Your task to perform on an android device: turn off smart reply in the gmail app Image 0: 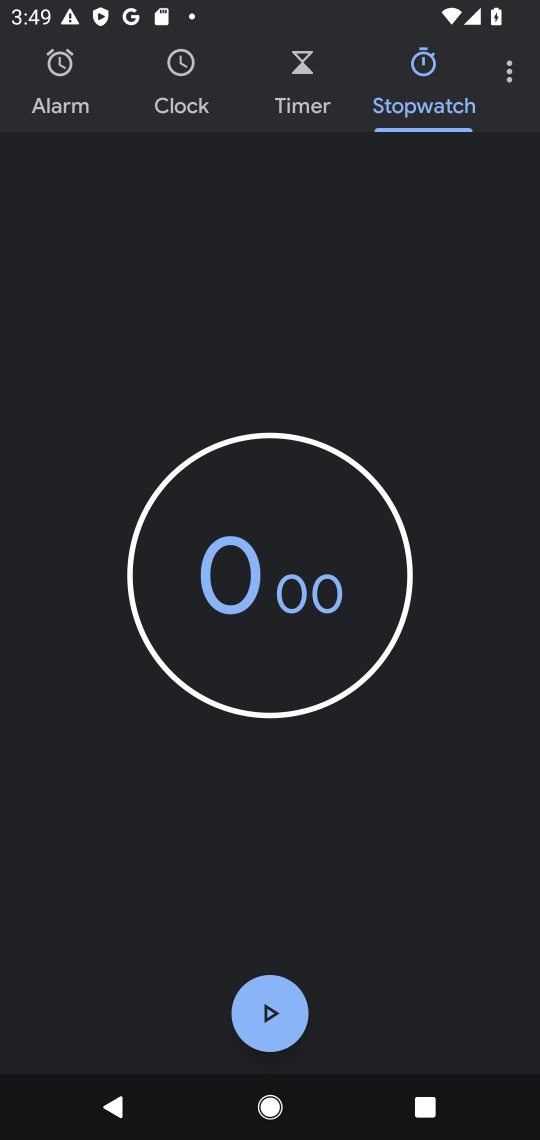
Step 0: press home button
Your task to perform on an android device: turn off smart reply in the gmail app Image 1: 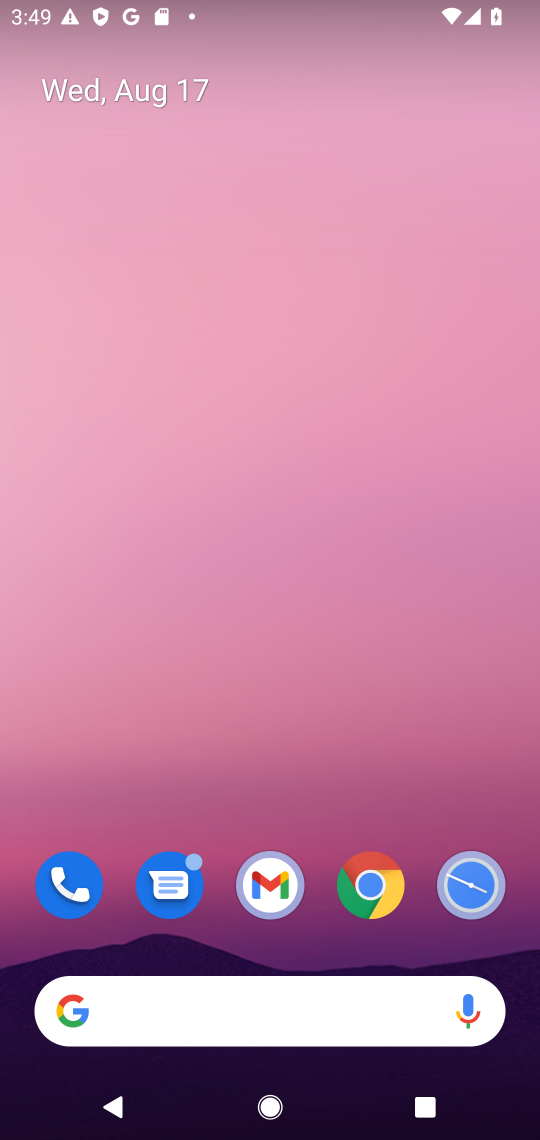
Step 1: drag from (192, 900) to (323, 11)
Your task to perform on an android device: turn off smart reply in the gmail app Image 2: 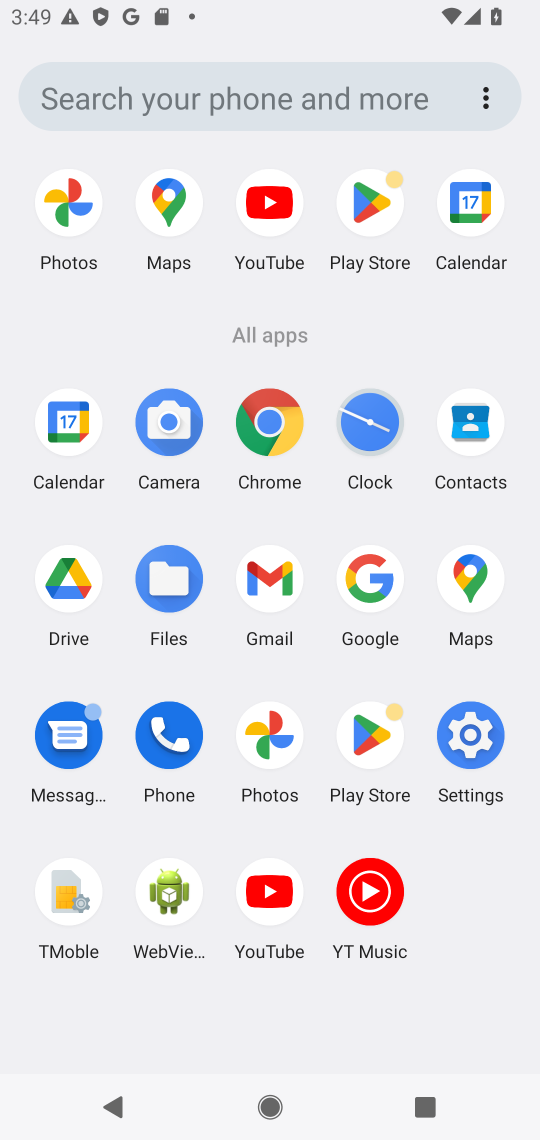
Step 2: click (270, 581)
Your task to perform on an android device: turn off smart reply in the gmail app Image 3: 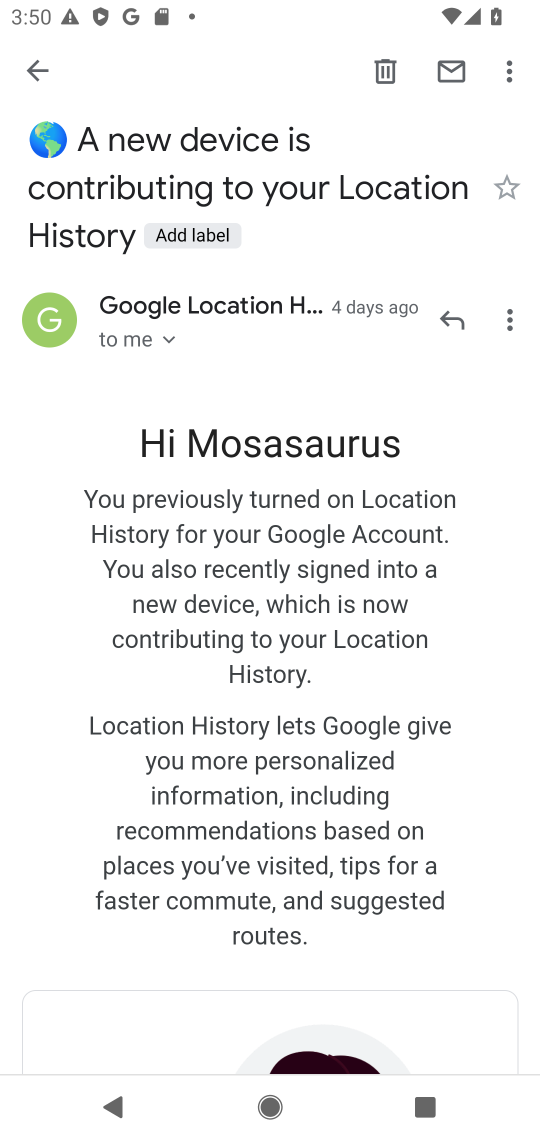
Step 3: press back button
Your task to perform on an android device: turn off smart reply in the gmail app Image 4: 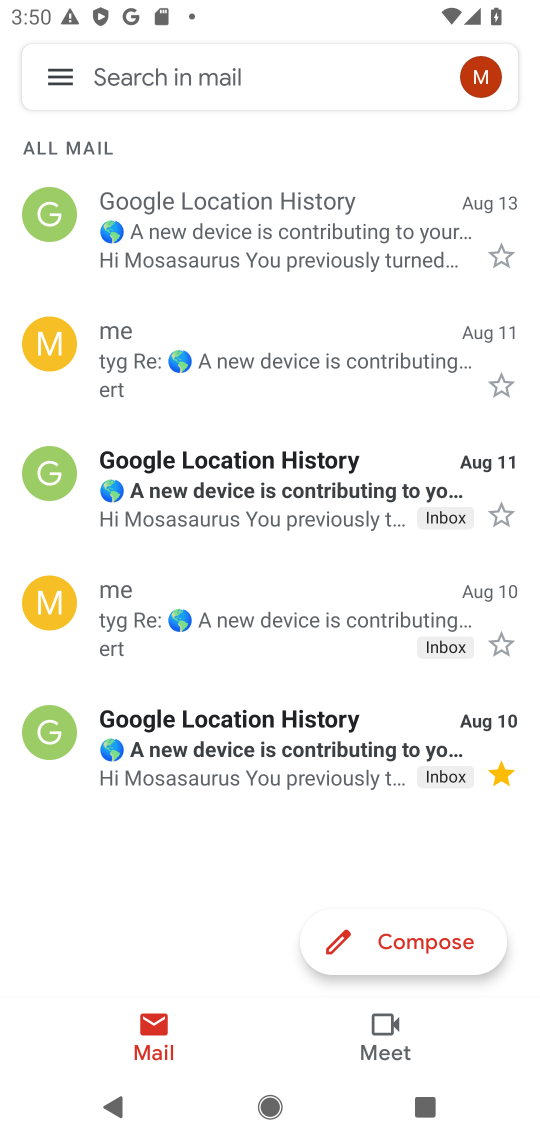
Step 4: click (60, 81)
Your task to perform on an android device: turn off smart reply in the gmail app Image 5: 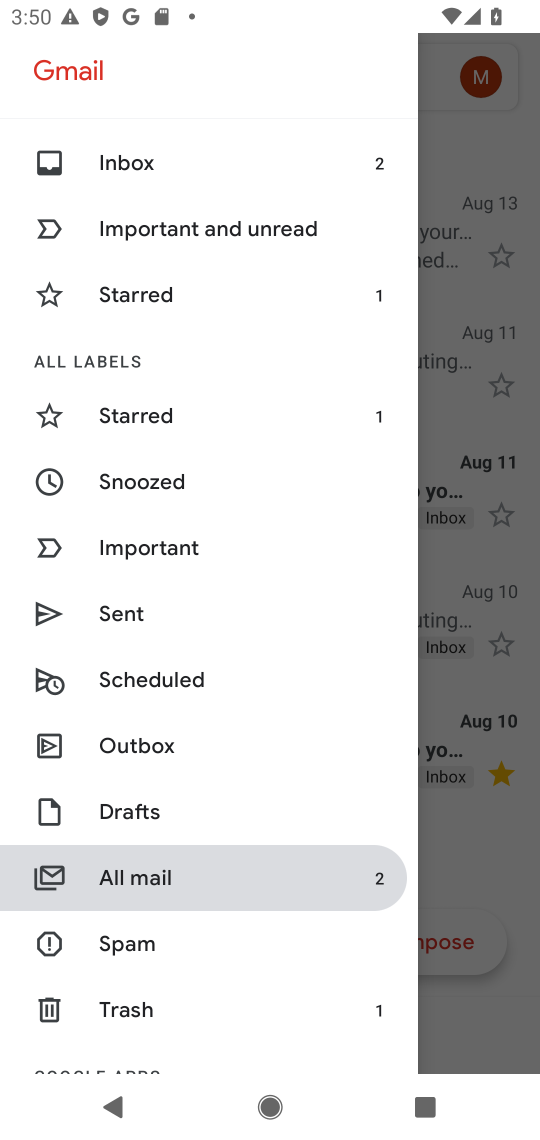
Step 5: drag from (204, 940) to (288, 687)
Your task to perform on an android device: turn off smart reply in the gmail app Image 6: 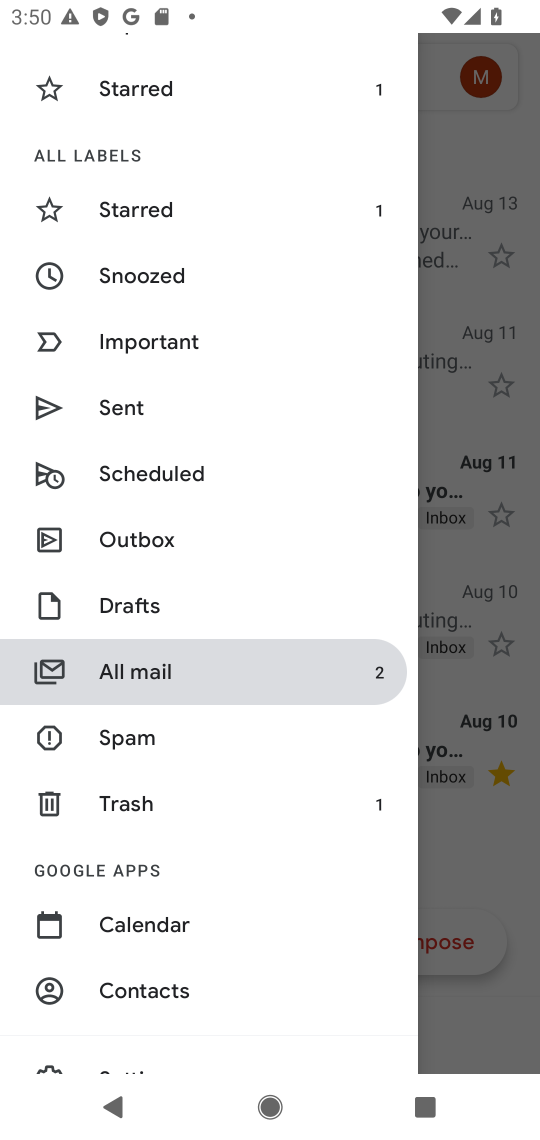
Step 6: drag from (197, 1001) to (262, 825)
Your task to perform on an android device: turn off smart reply in the gmail app Image 7: 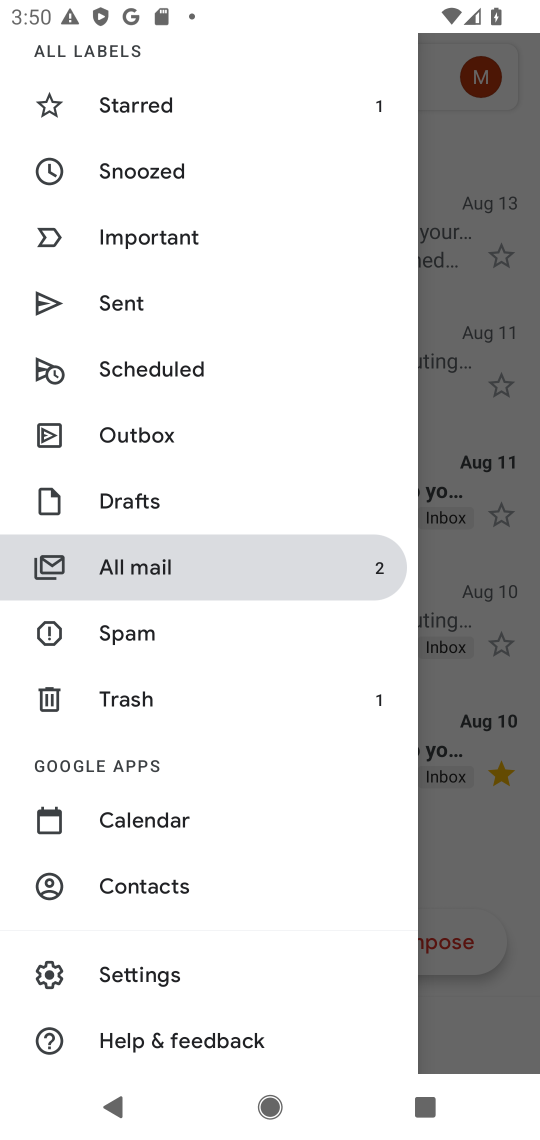
Step 7: click (137, 976)
Your task to perform on an android device: turn off smart reply in the gmail app Image 8: 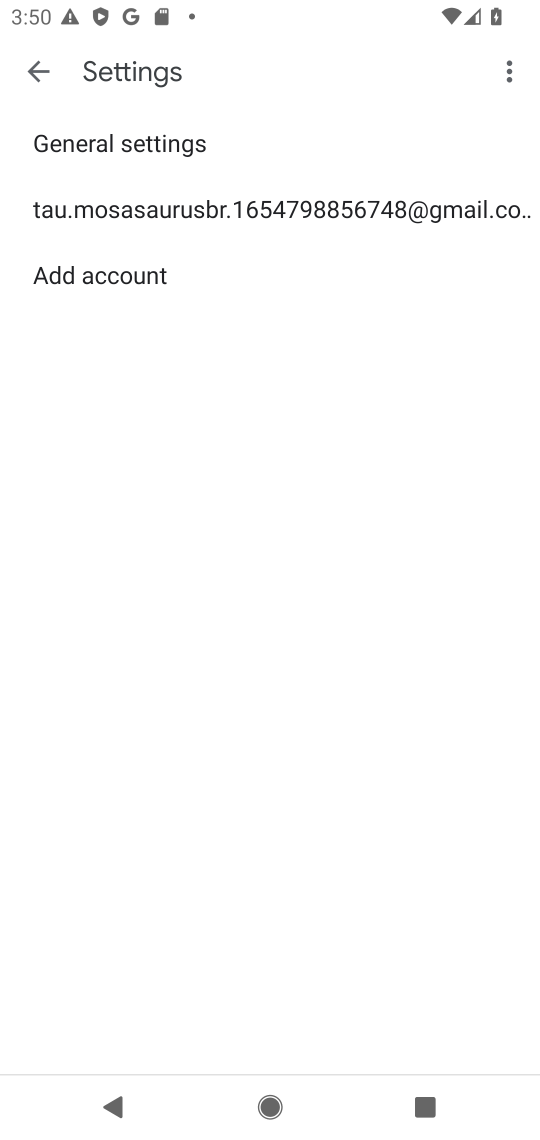
Step 8: click (251, 208)
Your task to perform on an android device: turn off smart reply in the gmail app Image 9: 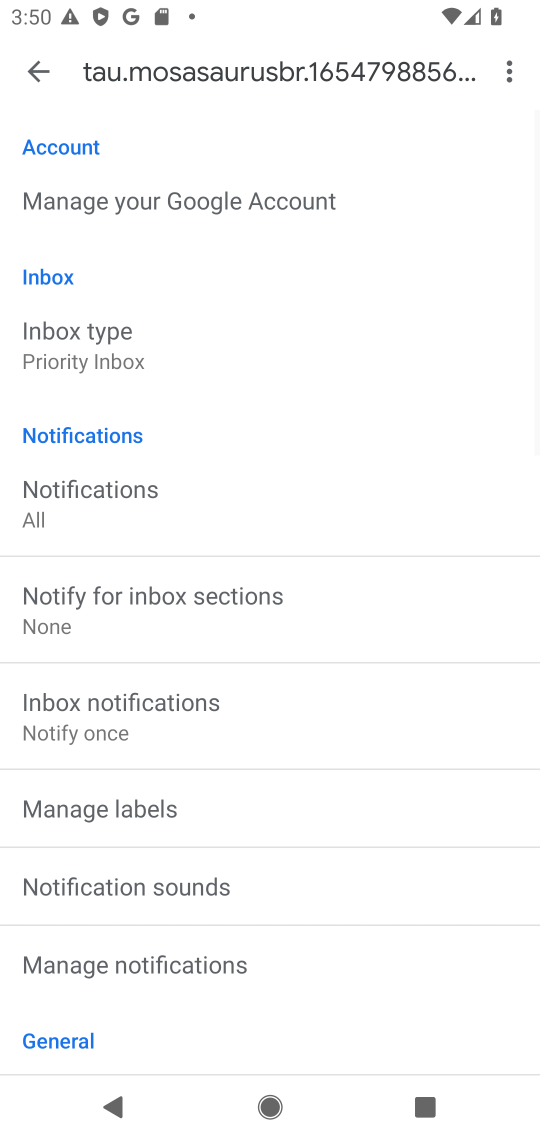
Step 9: drag from (250, 829) to (294, 602)
Your task to perform on an android device: turn off smart reply in the gmail app Image 10: 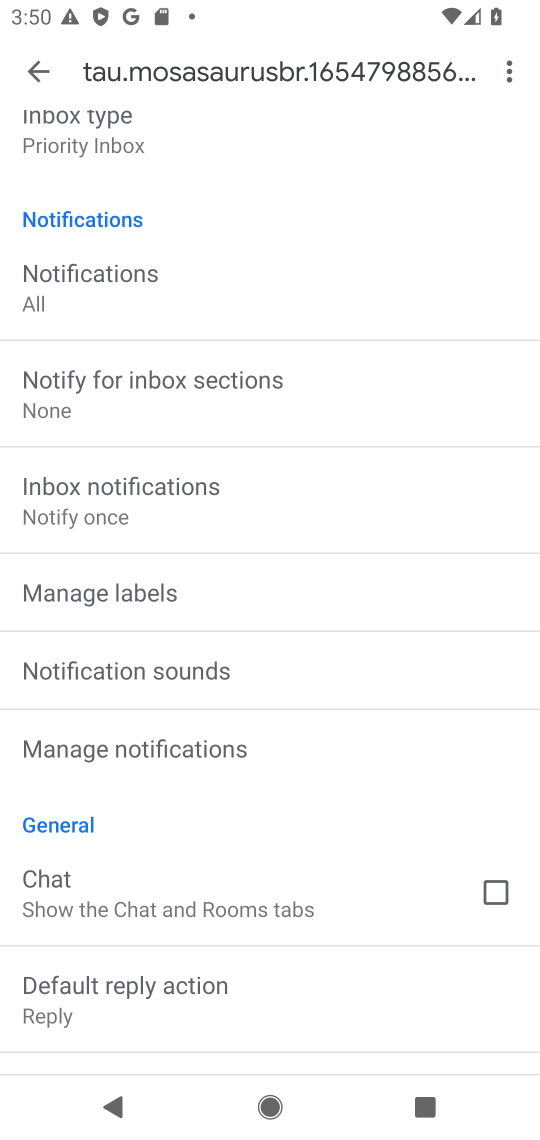
Step 10: drag from (192, 911) to (299, 742)
Your task to perform on an android device: turn off smart reply in the gmail app Image 11: 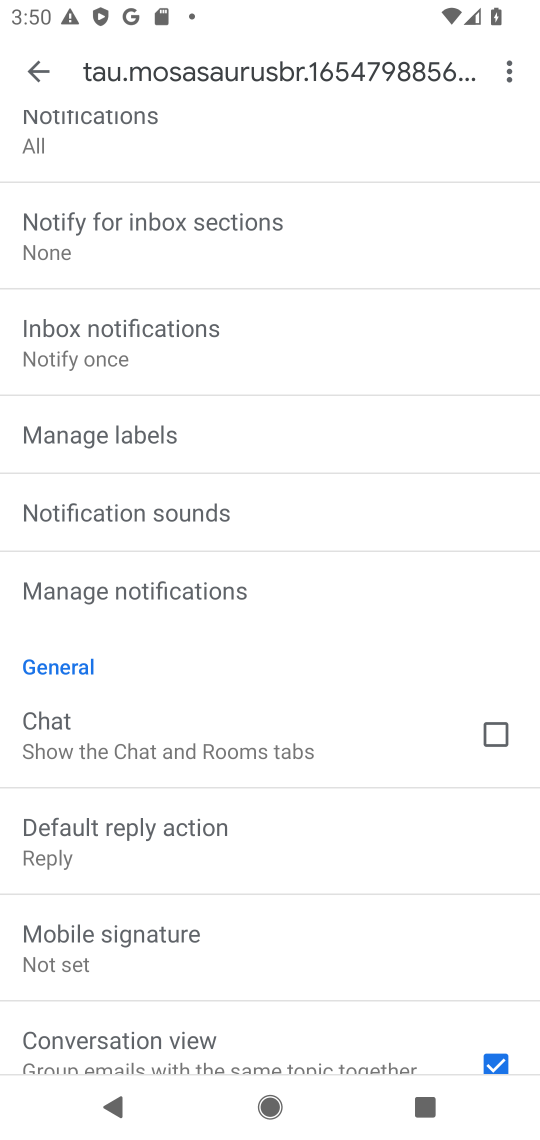
Step 11: drag from (192, 973) to (294, 788)
Your task to perform on an android device: turn off smart reply in the gmail app Image 12: 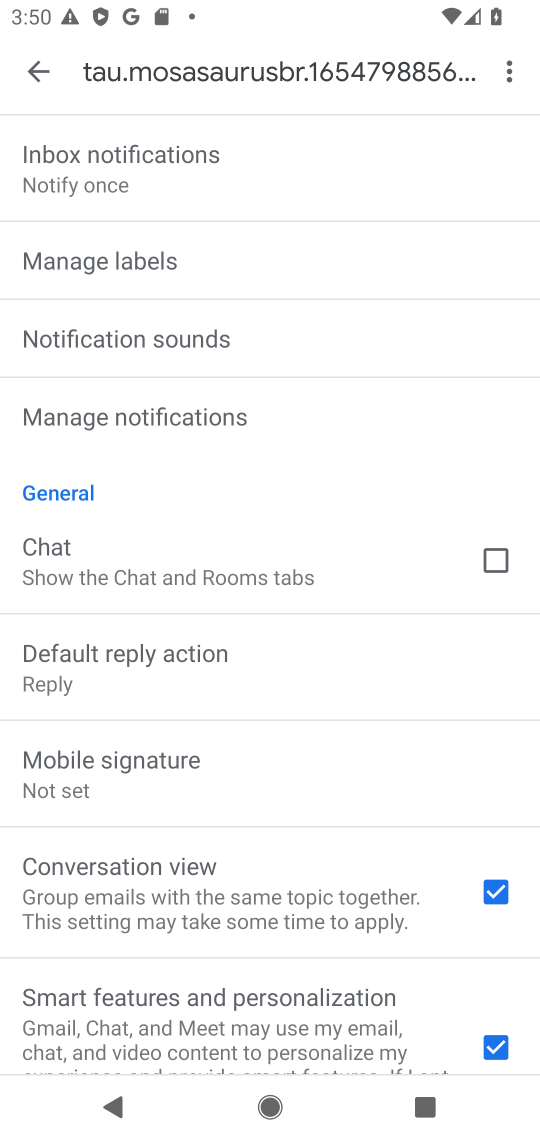
Step 12: drag from (184, 994) to (287, 814)
Your task to perform on an android device: turn off smart reply in the gmail app Image 13: 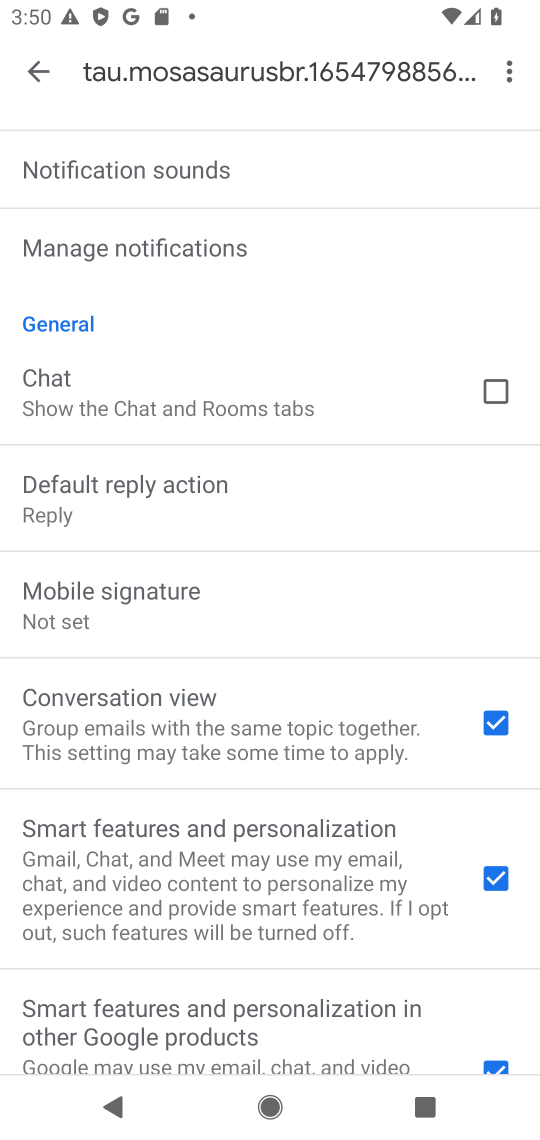
Step 13: drag from (226, 998) to (322, 849)
Your task to perform on an android device: turn off smart reply in the gmail app Image 14: 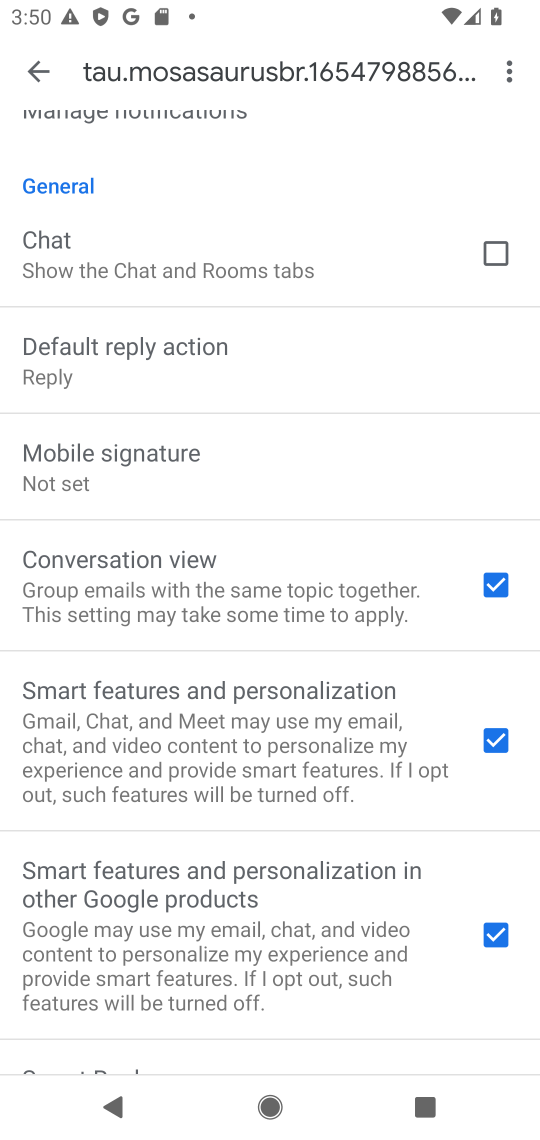
Step 14: drag from (239, 1024) to (325, 864)
Your task to perform on an android device: turn off smart reply in the gmail app Image 15: 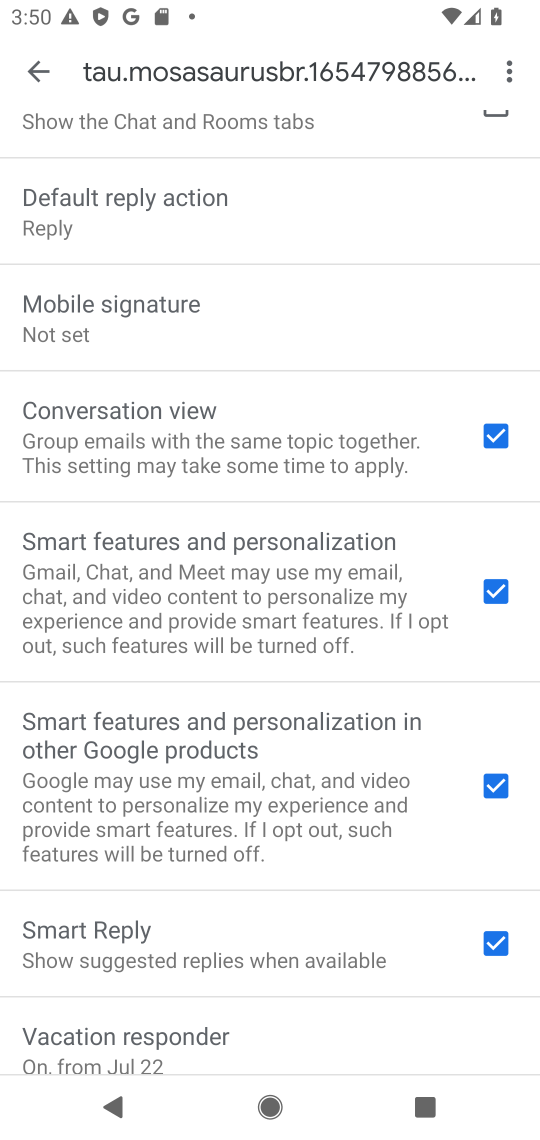
Step 15: click (498, 950)
Your task to perform on an android device: turn off smart reply in the gmail app Image 16: 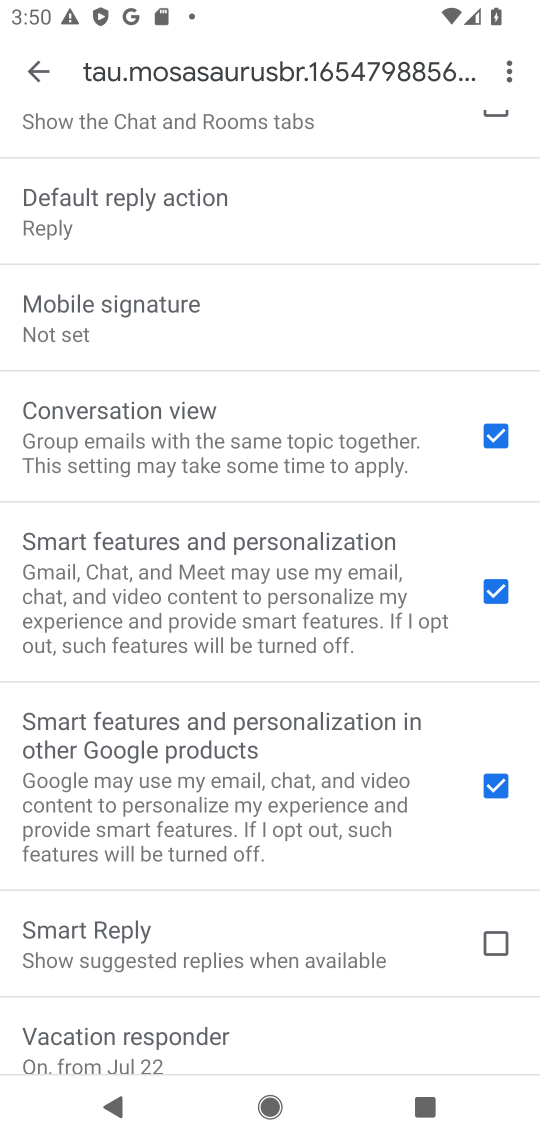
Step 16: task complete